Your task to perform on an android device: set default search engine in the chrome app Image 0: 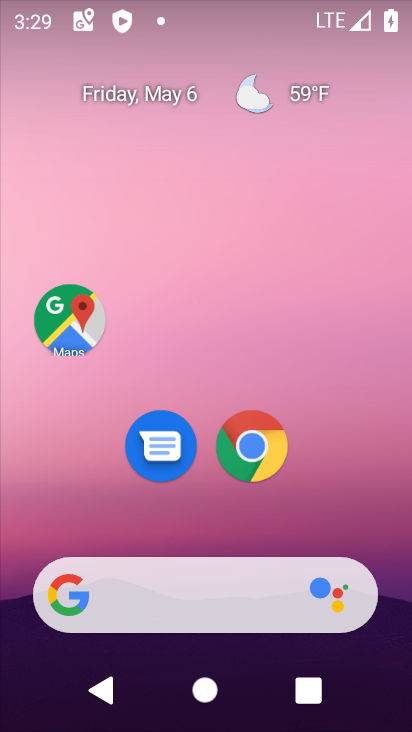
Step 0: click (268, 473)
Your task to perform on an android device: set default search engine in the chrome app Image 1: 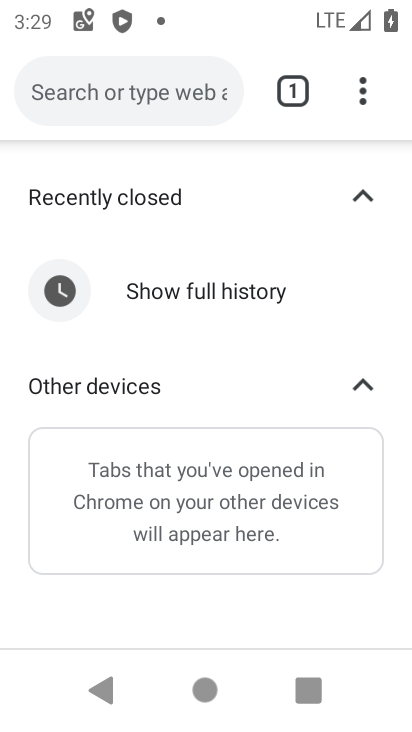
Step 1: drag from (359, 106) to (174, 489)
Your task to perform on an android device: set default search engine in the chrome app Image 2: 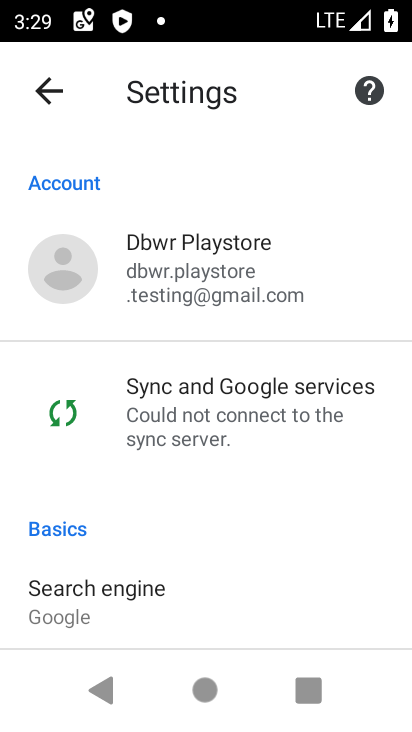
Step 2: click (152, 611)
Your task to perform on an android device: set default search engine in the chrome app Image 3: 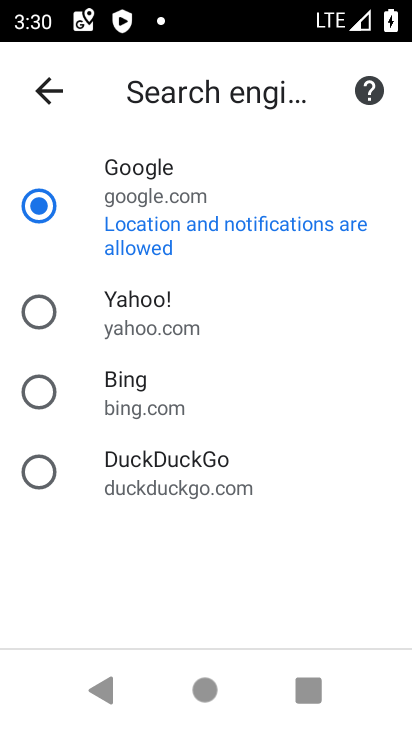
Step 3: click (122, 327)
Your task to perform on an android device: set default search engine in the chrome app Image 4: 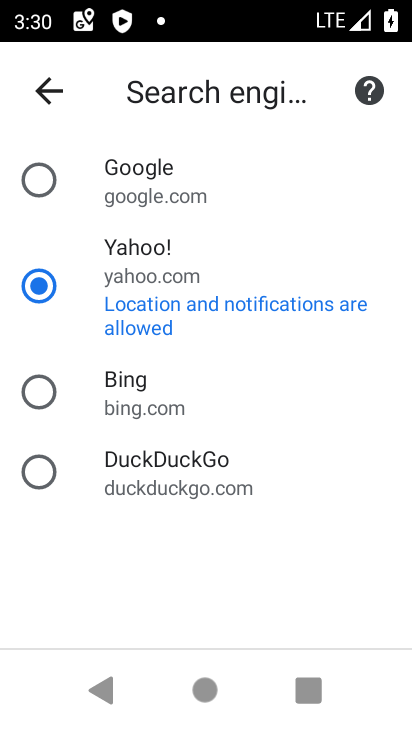
Step 4: task complete